Your task to perform on an android device: Open Chrome and go to settings Image 0: 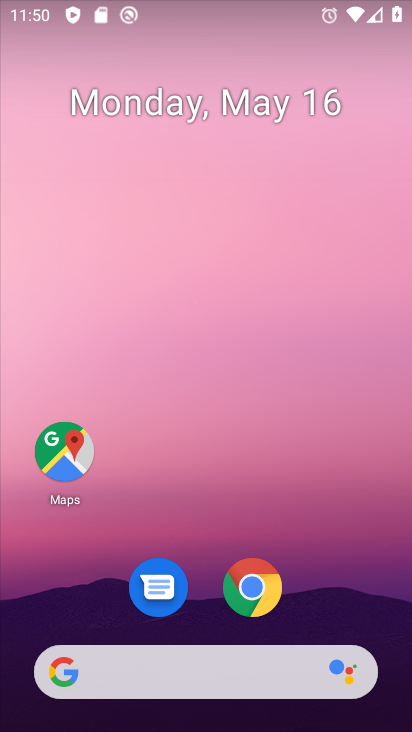
Step 0: drag from (331, 583) to (279, 155)
Your task to perform on an android device: Open Chrome and go to settings Image 1: 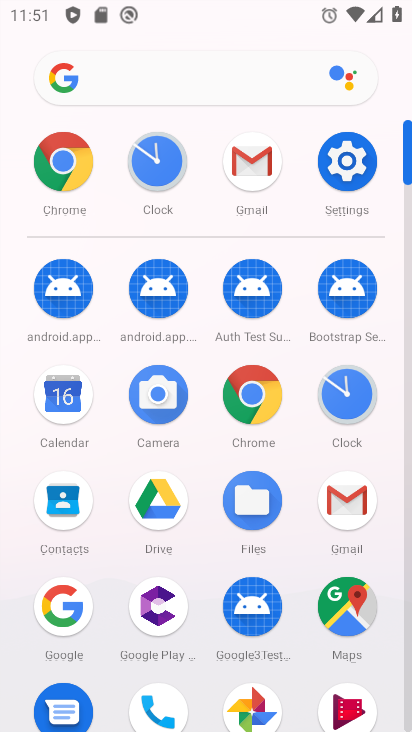
Step 1: click (242, 406)
Your task to perform on an android device: Open Chrome and go to settings Image 2: 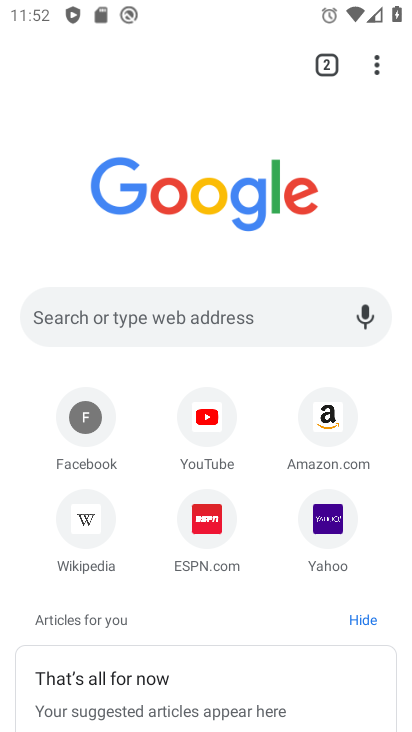
Step 2: click (377, 55)
Your task to perform on an android device: Open Chrome and go to settings Image 3: 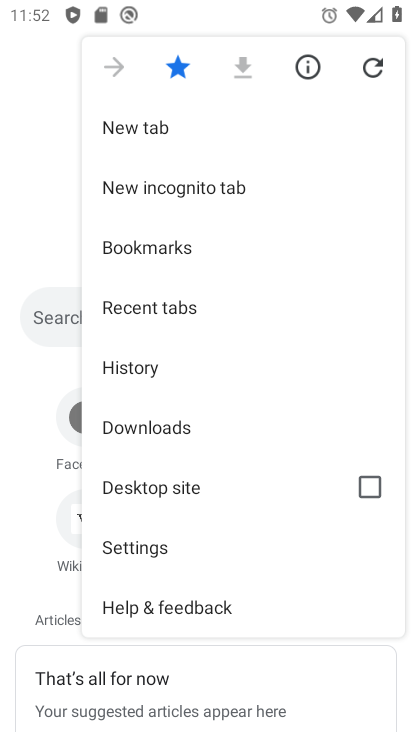
Step 3: click (162, 548)
Your task to perform on an android device: Open Chrome and go to settings Image 4: 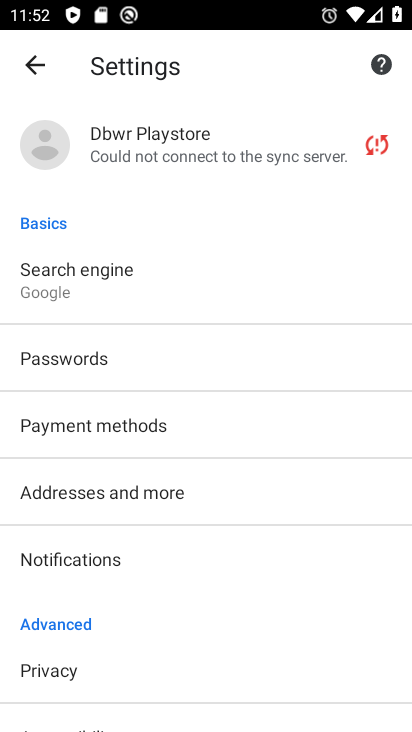
Step 4: task complete